Your task to perform on an android device: Clear all items from cart on ebay. Search for bose soundlink mini on ebay, select the first entry, add it to the cart, then select checkout. Image 0: 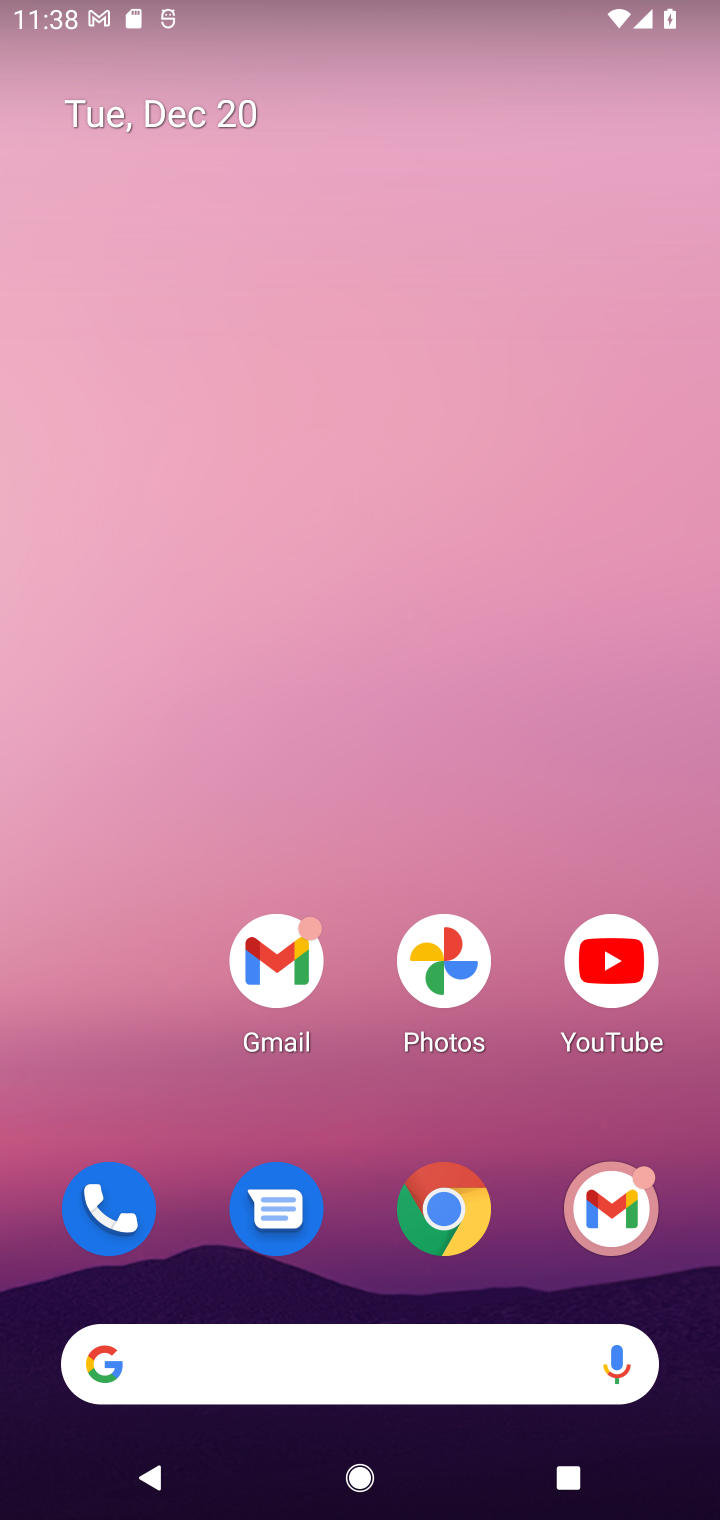
Step 0: click (461, 1220)
Your task to perform on an android device: Clear all items from cart on ebay. Search for bose soundlink mini on ebay, select the first entry, add it to the cart, then select checkout. Image 1: 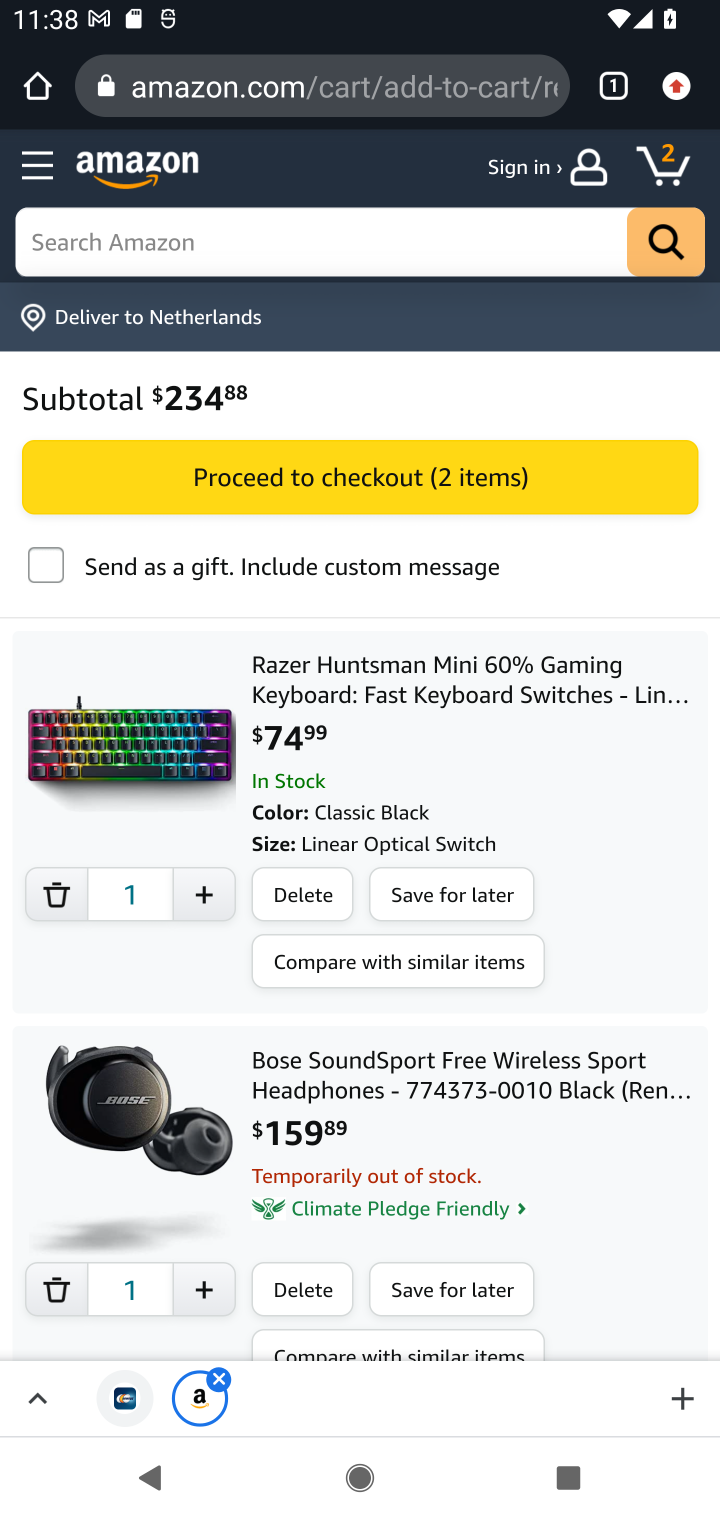
Step 1: click (279, 105)
Your task to perform on an android device: Clear all items from cart on ebay. Search for bose soundlink mini on ebay, select the first entry, add it to the cart, then select checkout. Image 2: 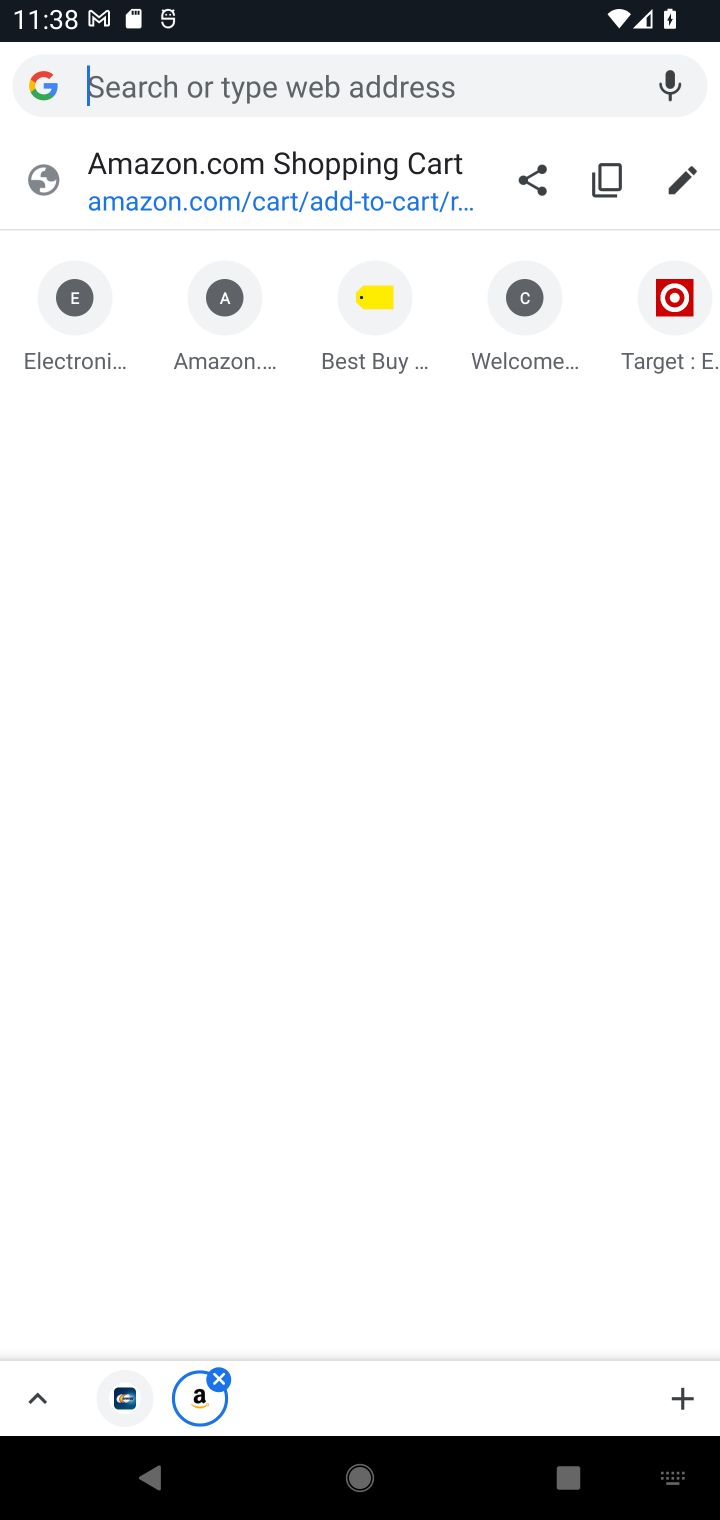
Step 2: type "ebay.com"
Your task to perform on an android device: Clear all items from cart on ebay. Search for bose soundlink mini on ebay, select the first entry, add it to the cart, then select checkout. Image 3: 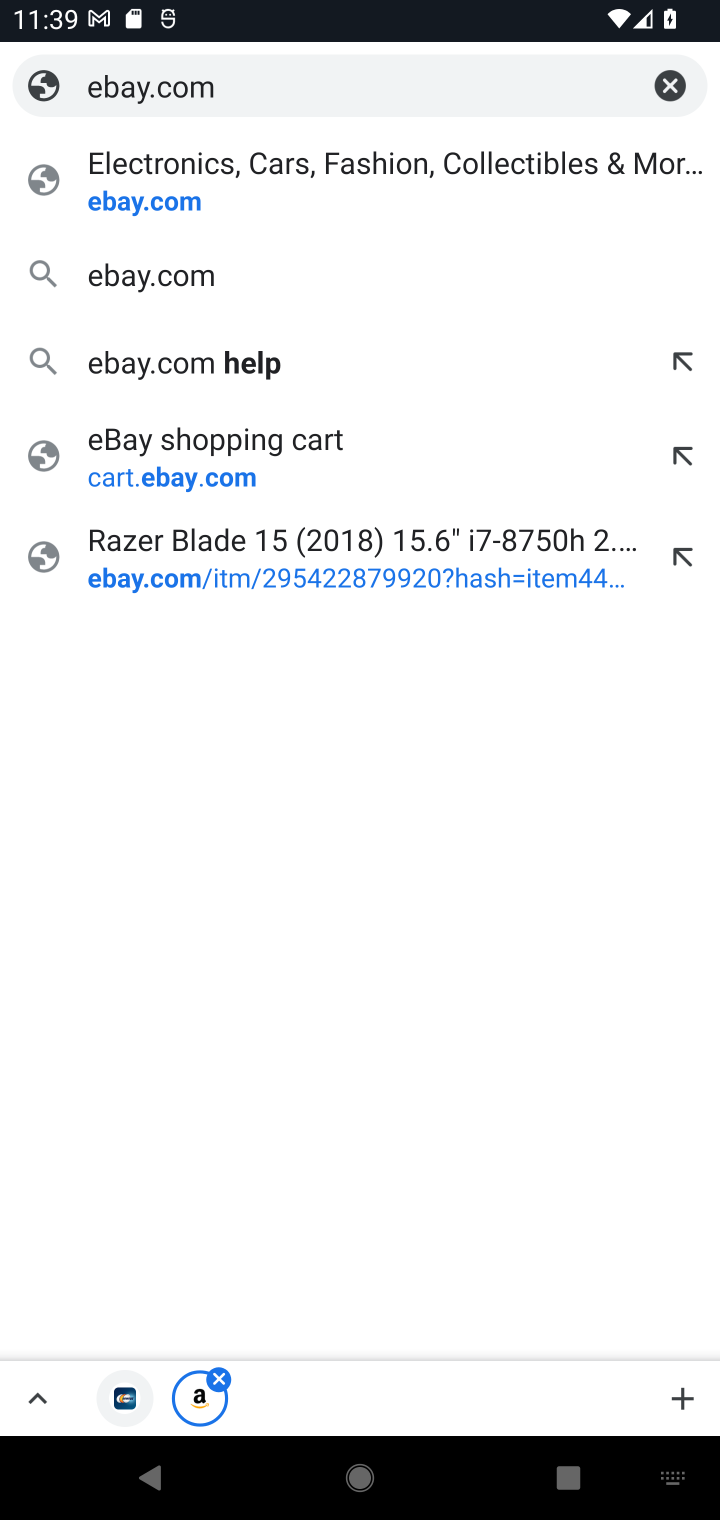
Step 3: click (168, 207)
Your task to perform on an android device: Clear all items from cart on ebay. Search for bose soundlink mini on ebay, select the first entry, add it to the cart, then select checkout. Image 4: 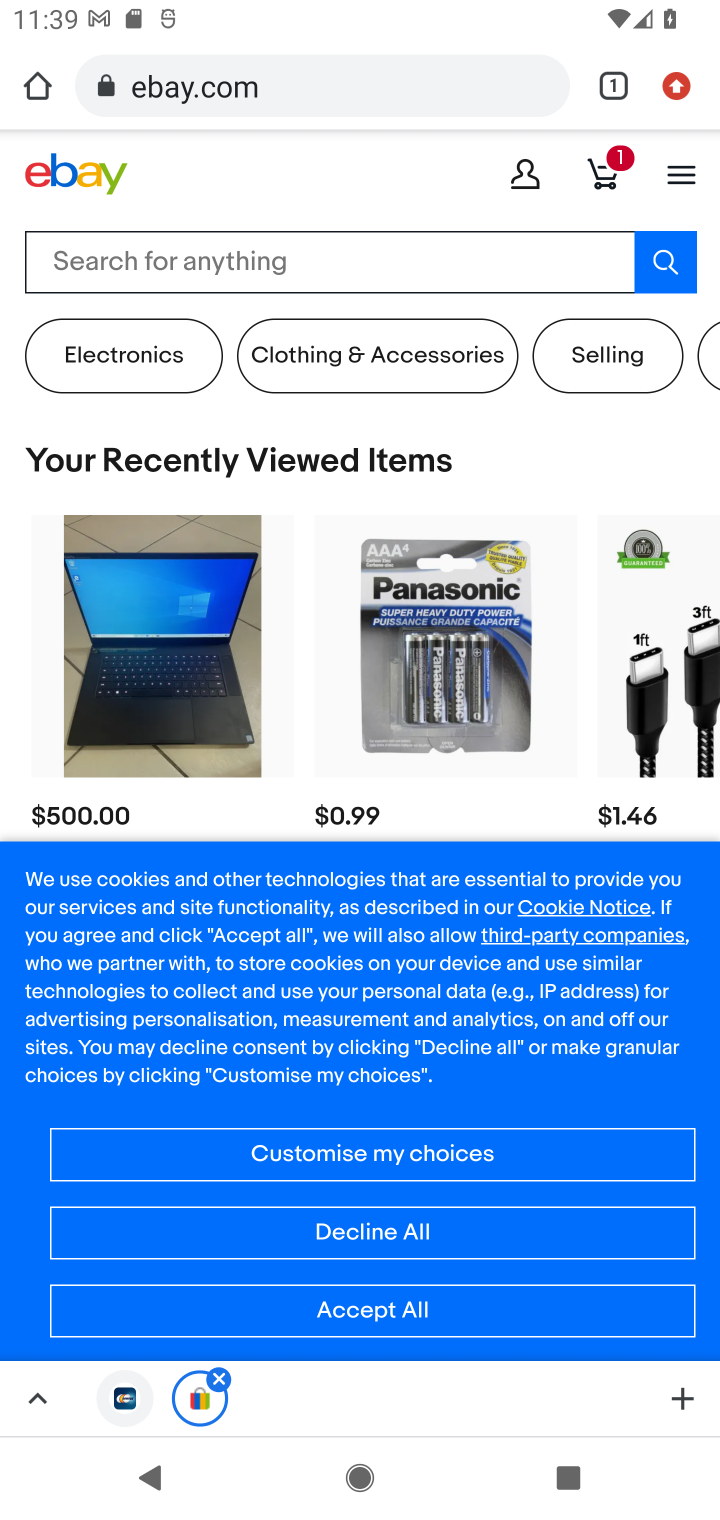
Step 4: click (607, 175)
Your task to perform on an android device: Clear all items from cart on ebay. Search for bose soundlink mini on ebay, select the first entry, add it to the cart, then select checkout. Image 5: 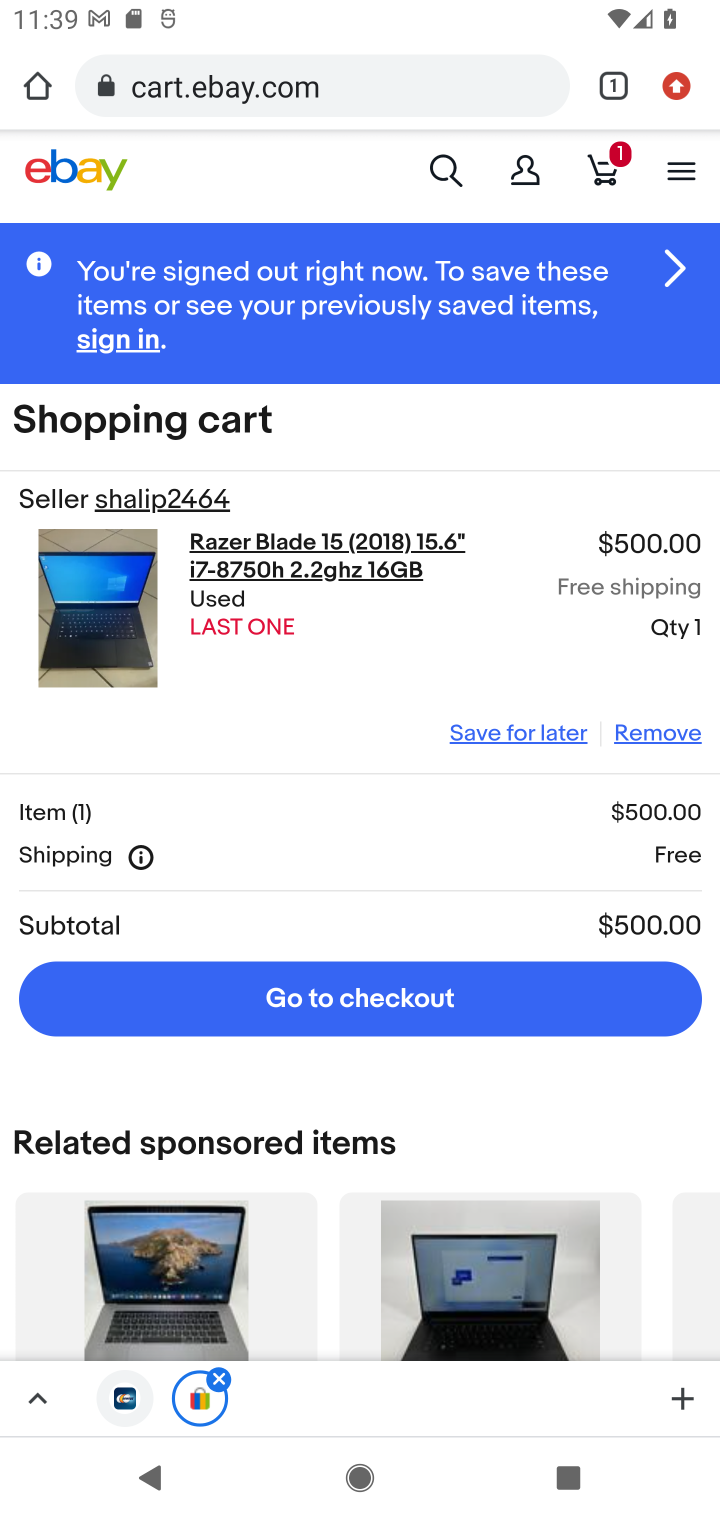
Step 5: click (646, 729)
Your task to perform on an android device: Clear all items from cart on ebay. Search for bose soundlink mini on ebay, select the first entry, add it to the cart, then select checkout. Image 6: 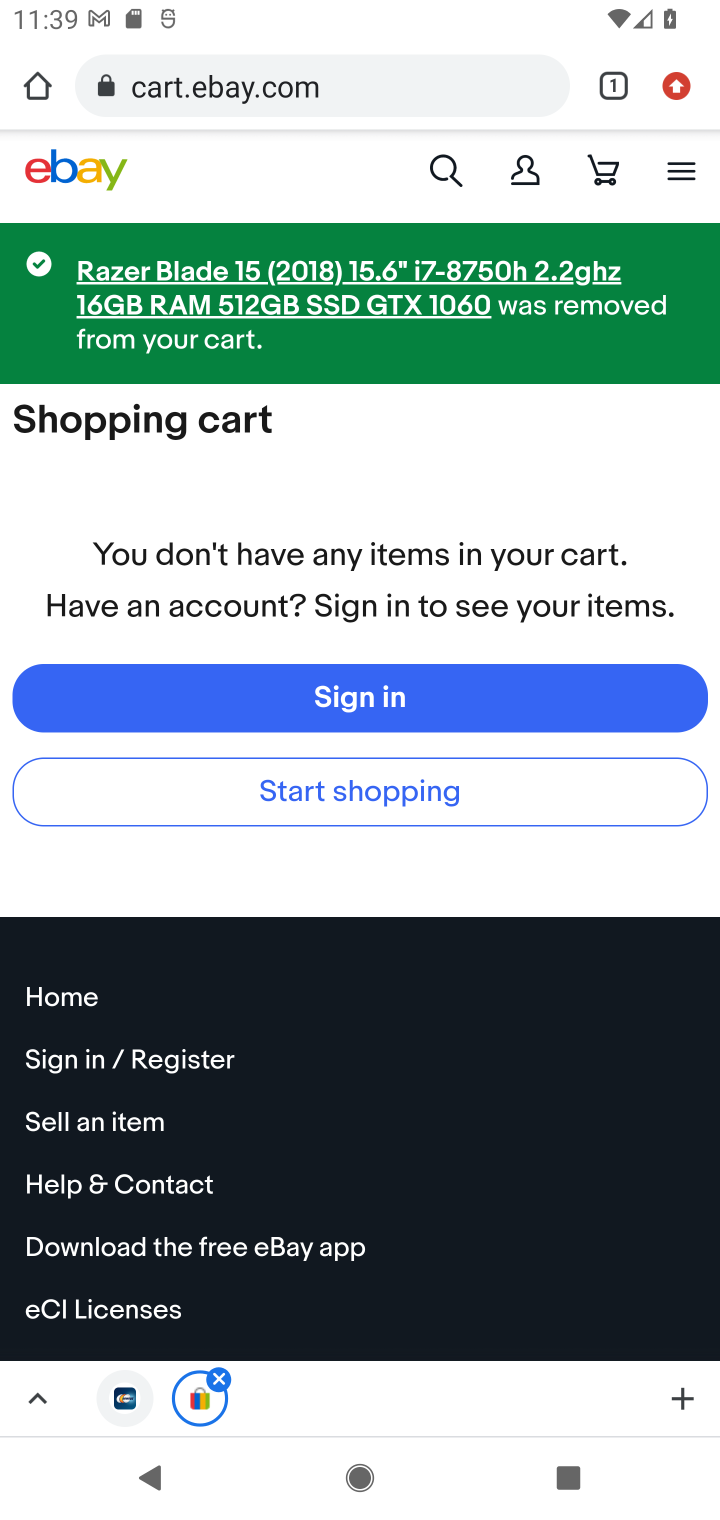
Step 6: click (434, 170)
Your task to perform on an android device: Clear all items from cart on ebay. Search for bose soundlink mini on ebay, select the first entry, add it to the cart, then select checkout. Image 7: 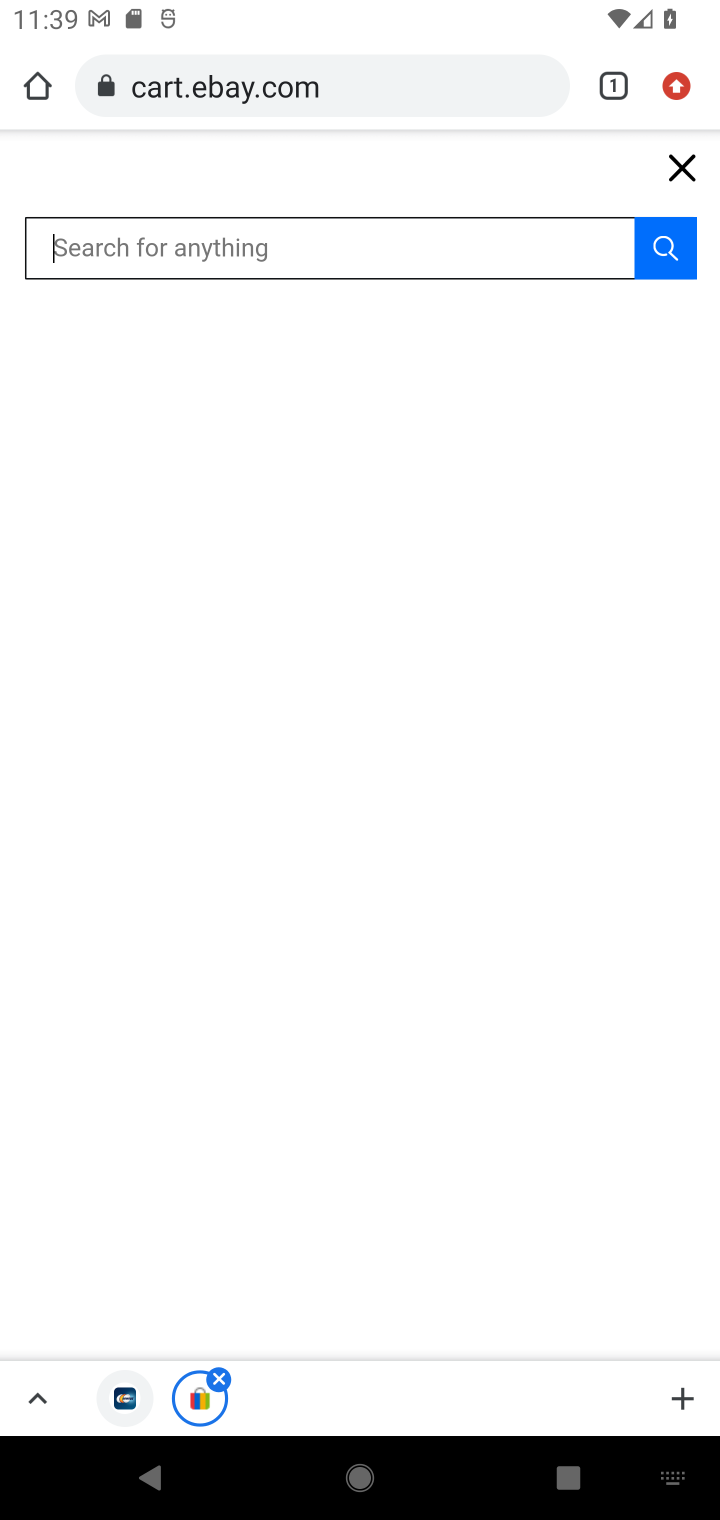
Step 7: type "bose soundlink mini "
Your task to perform on an android device: Clear all items from cart on ebay. Search for bose soundlink mini on ebay, select the first entry, add it to the cart, then select checkout. Image 8: 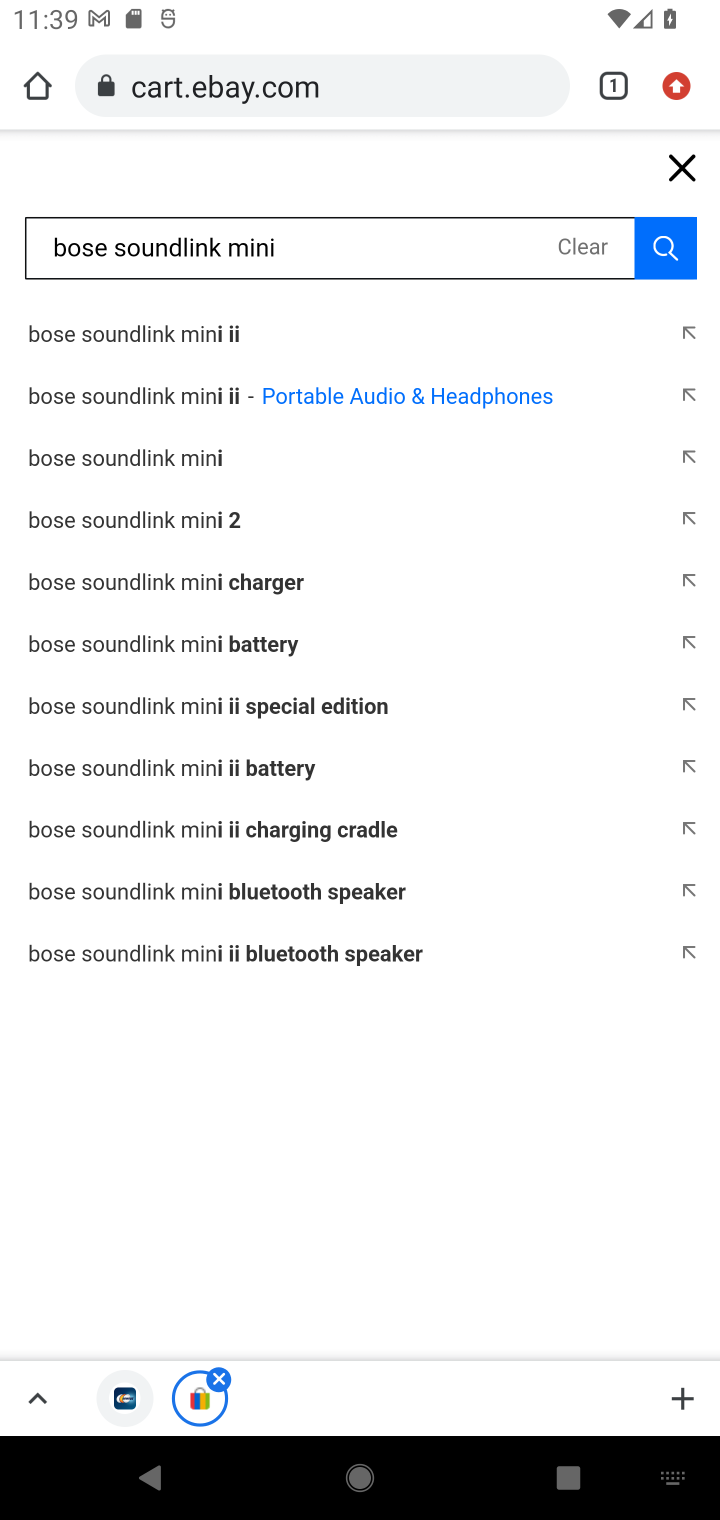
Step 8: click (212, 462)
Your task to perform on an android device: Clear all items from cart on ebay. Search for bose soundlink mini on ebay, select the first entry, add it to the cart, then select checkout. Image 9: 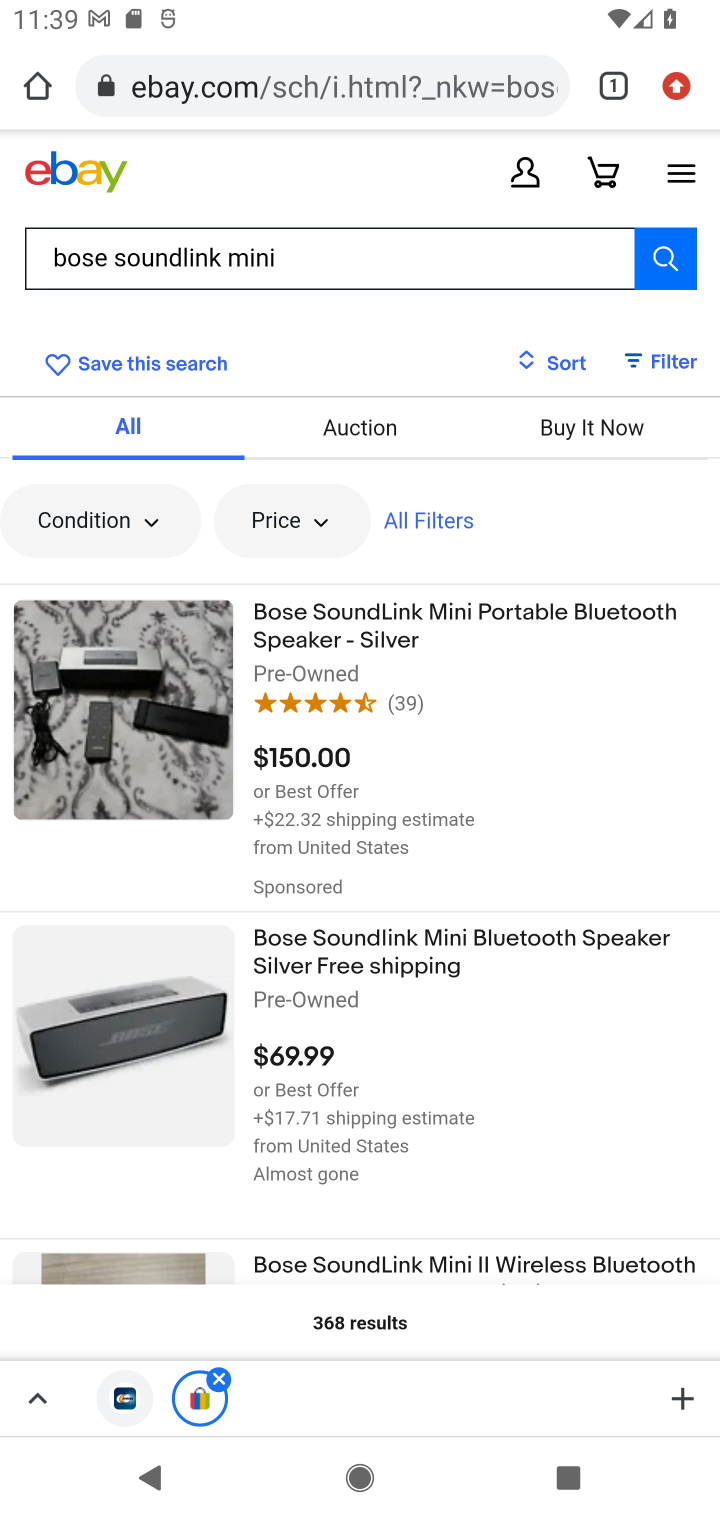
Step 9: click (294, 622)
Your task to perform on an android device: Clear all items from cart on ebay. Search for bose soundlink mini on ebay, select the first entry, add it to the cart, then select checkout. Image 10: 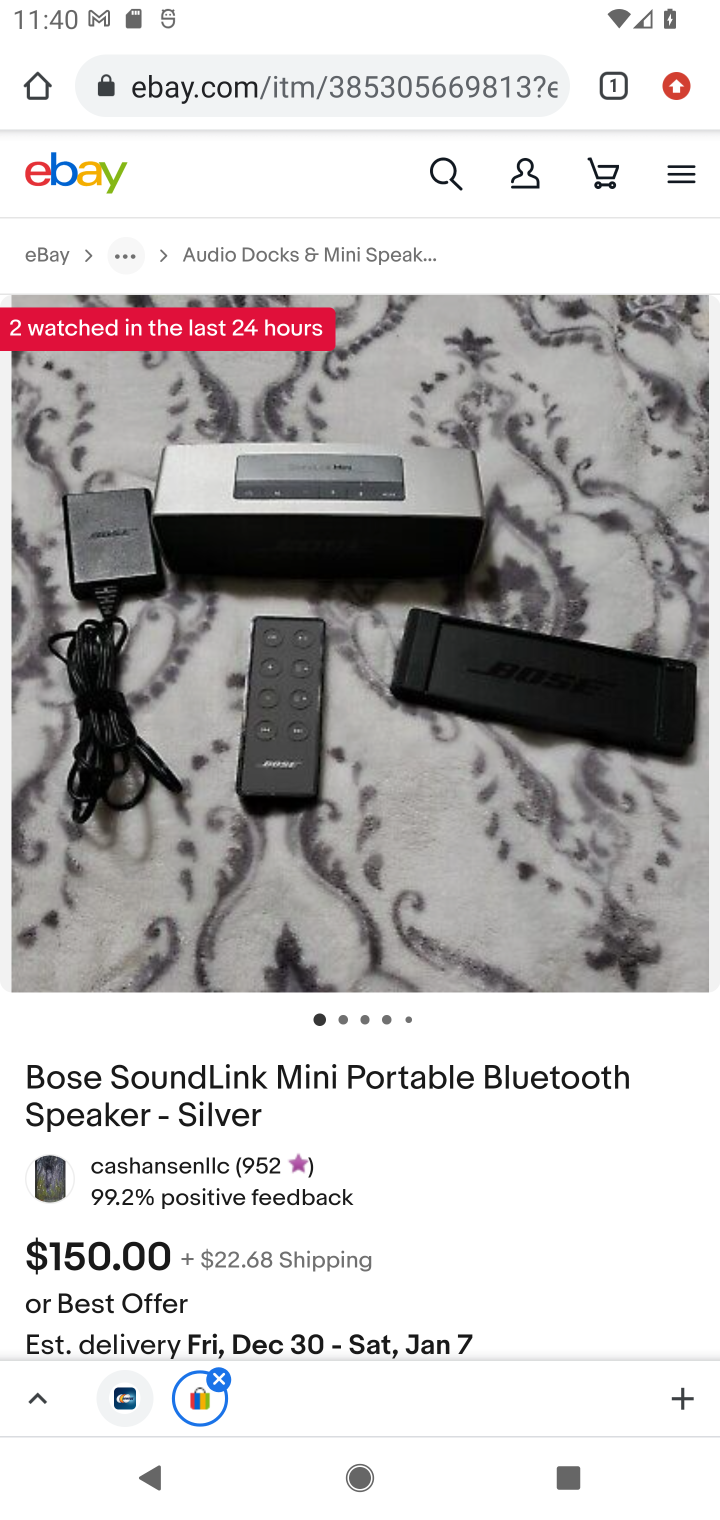
Step 10: drag from (416, 1041) to (414, 668)
Your task to perform on an android device: Clear all items from cart on ebay. Search for bose soundlink mini on ebay, select the first entry, add it to the cart, then select checkout. Image 11: 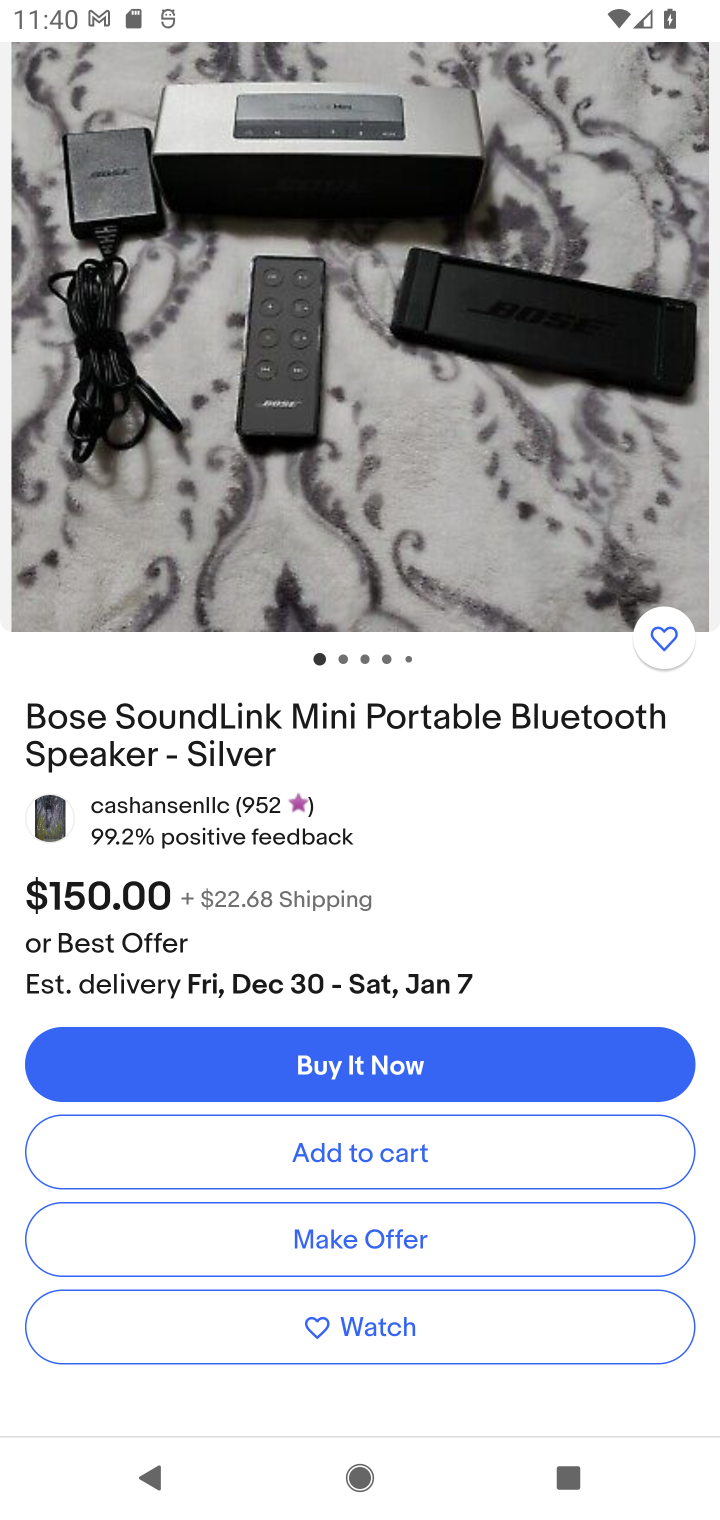
Step 11: click (337, 1156)
Your task to perform on an android device: Clear all items from cart on ebay. Search for bose soundlink mini on ebay, select the first entry, add it to the cart, then select checkout. Image 12: 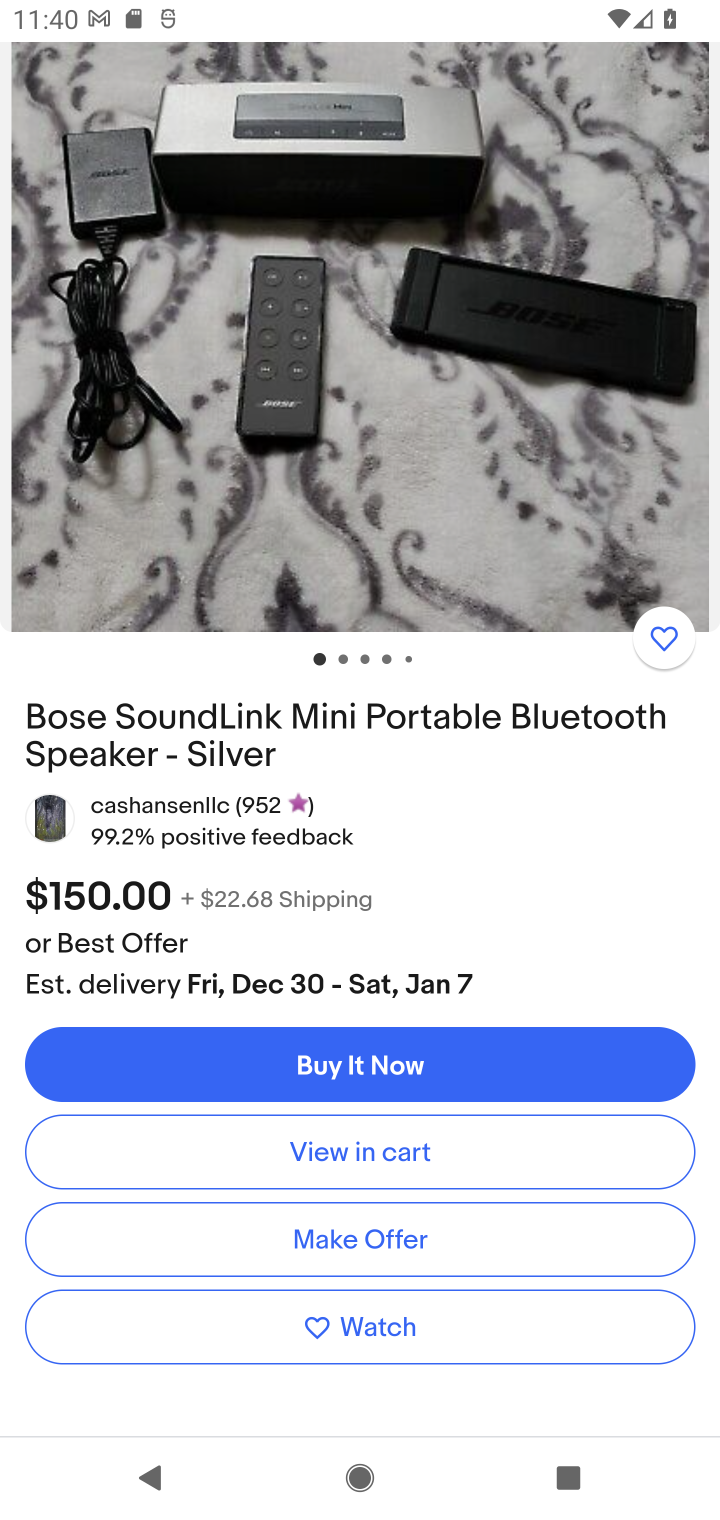
Step 12: click (337, 1156)
Your task to perform on an android device: Clear all items from cart on ebay. Search for bose soundlink mini on ebay, select the first entry, add it to the cart, then select checkout. Image 13: 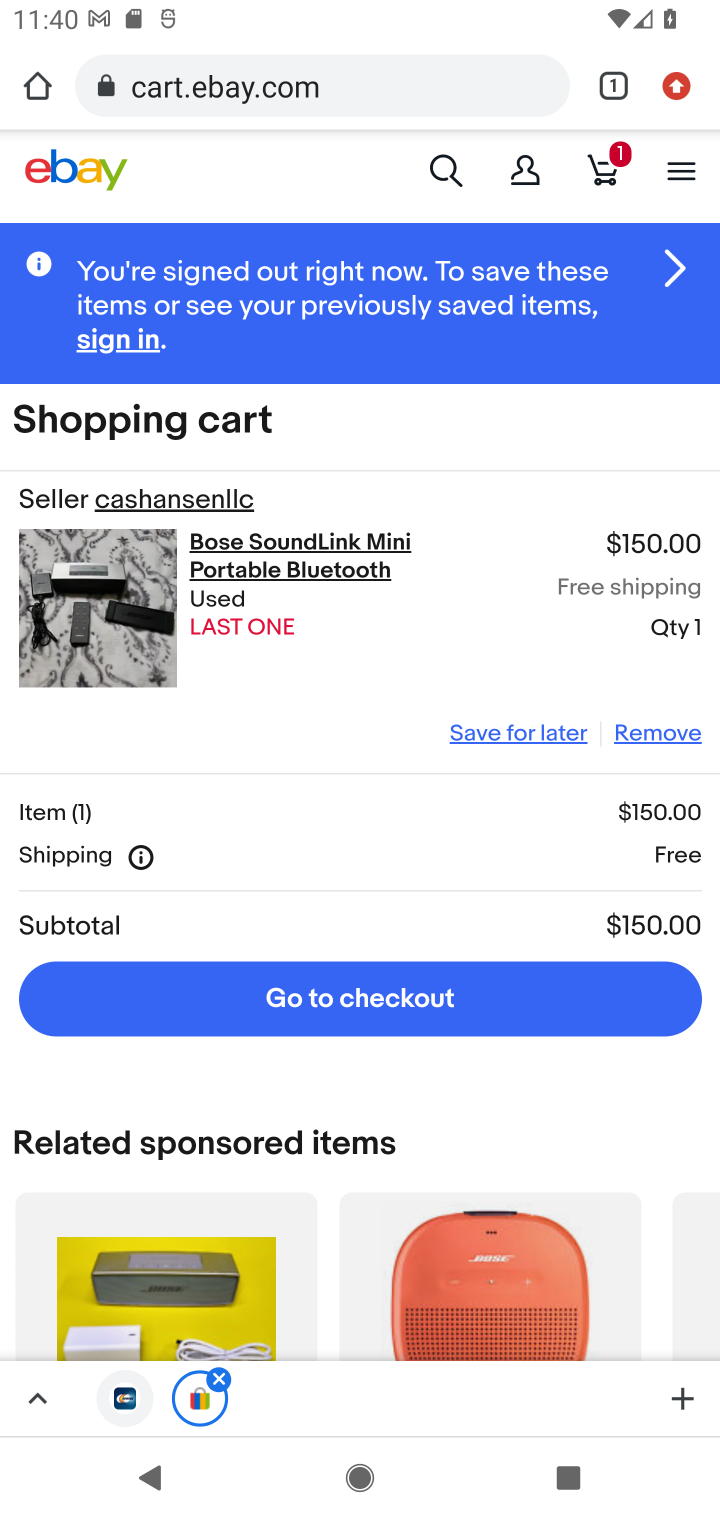
Step 13: click (291, 985)
Your task to perform on an android device: Clear all items from cart on ebay. Search for bose soundlink mini on ebay, select the first entry, add it to the cart, then select checkout. Image 14: 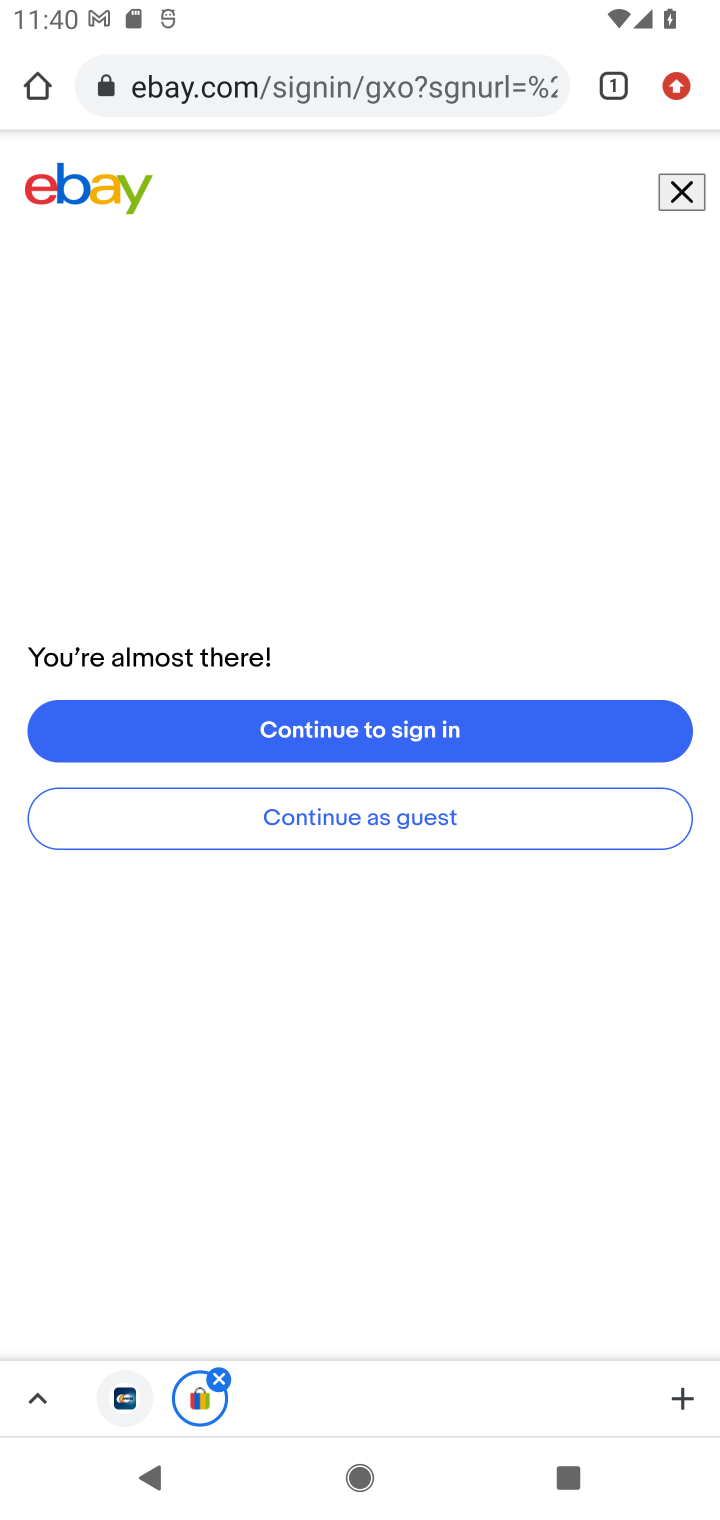
Step 14: task complete